Your task to perform on an android device: toggle airplane mode Image 0: 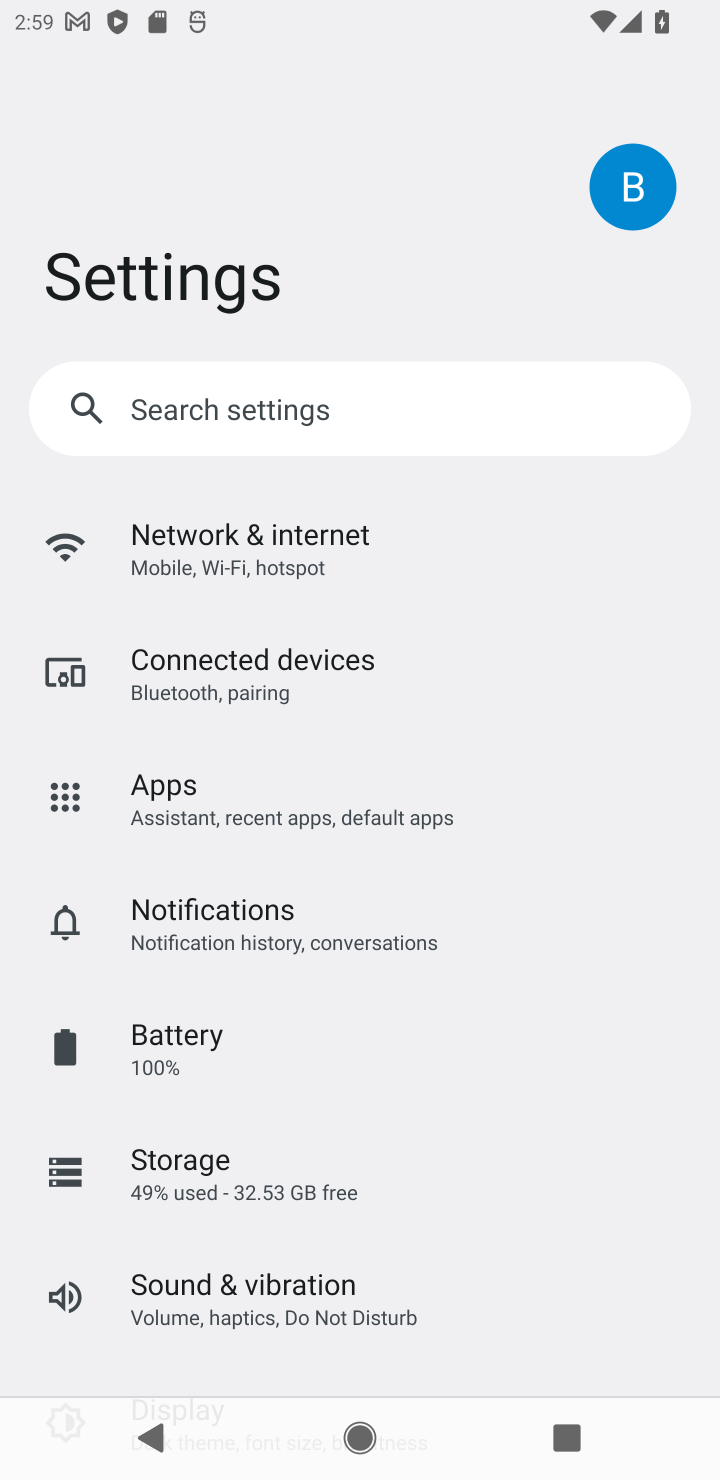
Step 0: drag from (460, 1304) to (456, 228)
Your task to perform on an android device: toggle airplane mode Image 1: 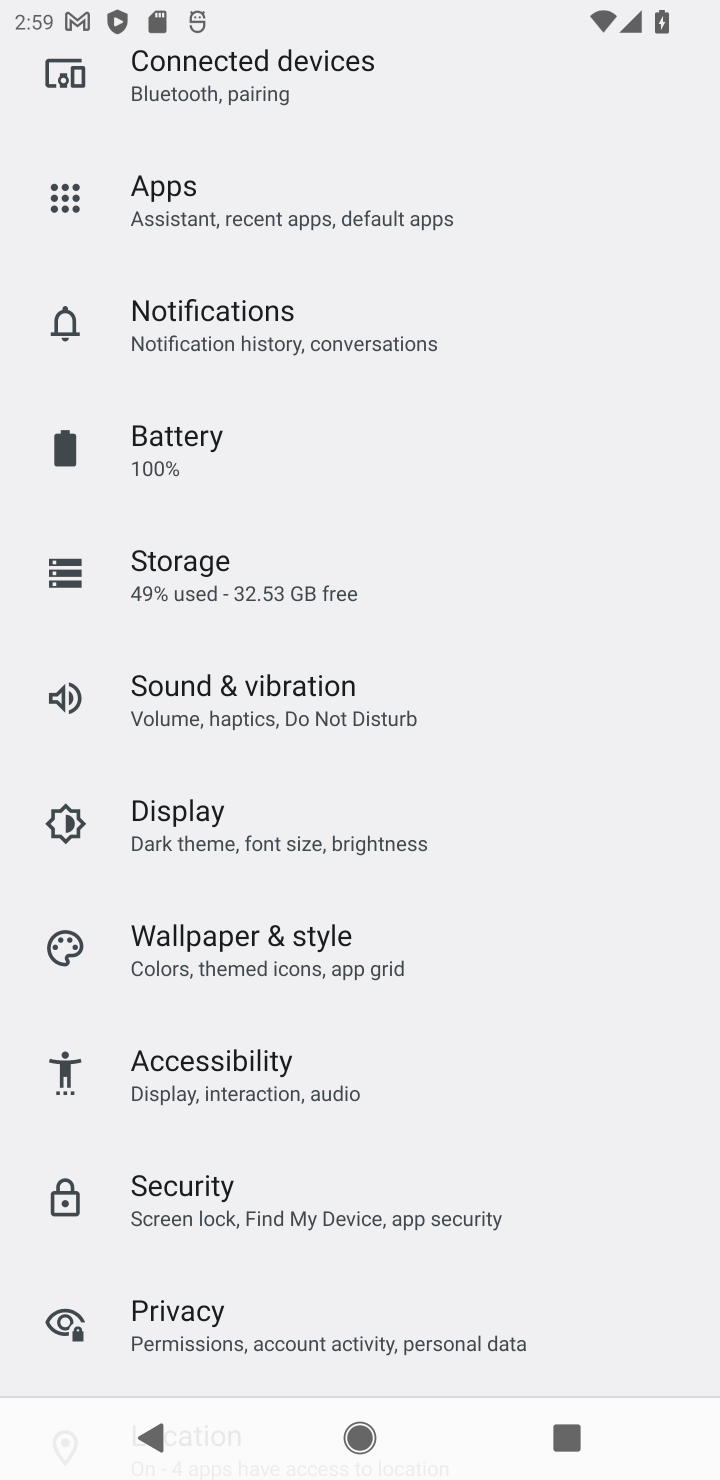
Step 1: drag from (477, 212) to (331, 1478)
Your task to perform on an android device: toggle airplane mode Image 2: 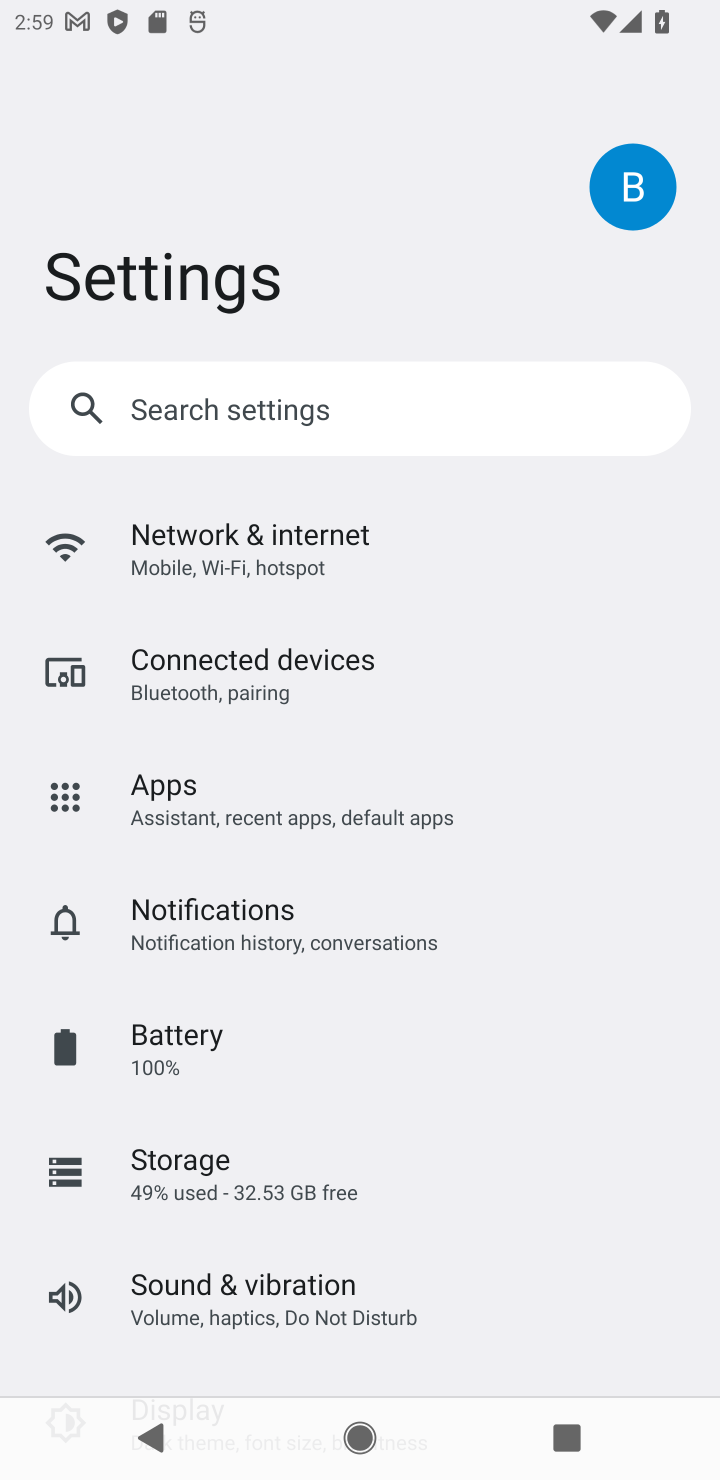
Step 2: click (489, 554)
Your task to perform on an android device: toggle airplane mode Image 3: 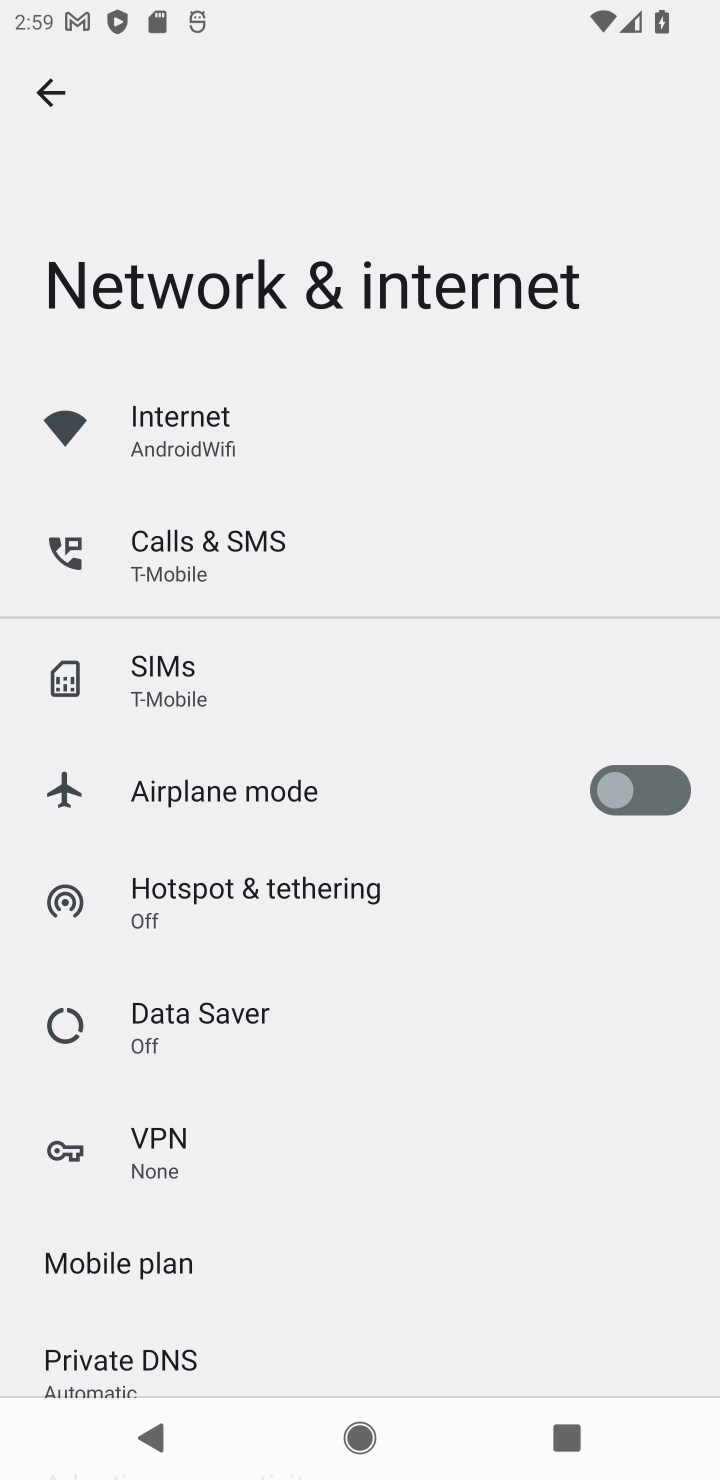
Step 3: click (635, 788)
Your task to perform on an android device: toggle airplane mode Image 4: 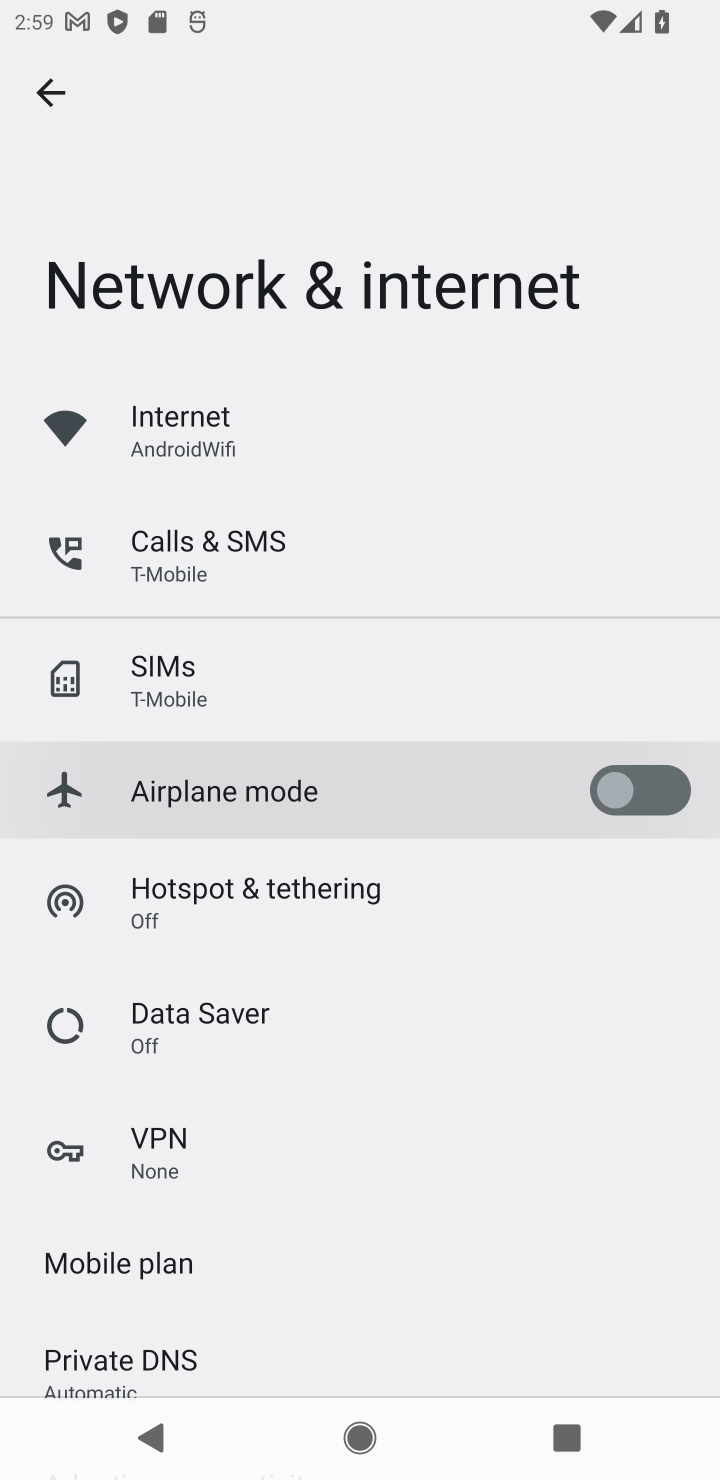
Step 4: task complete